Your task to perform on an android device: Open settings on Google Maps Image 0: 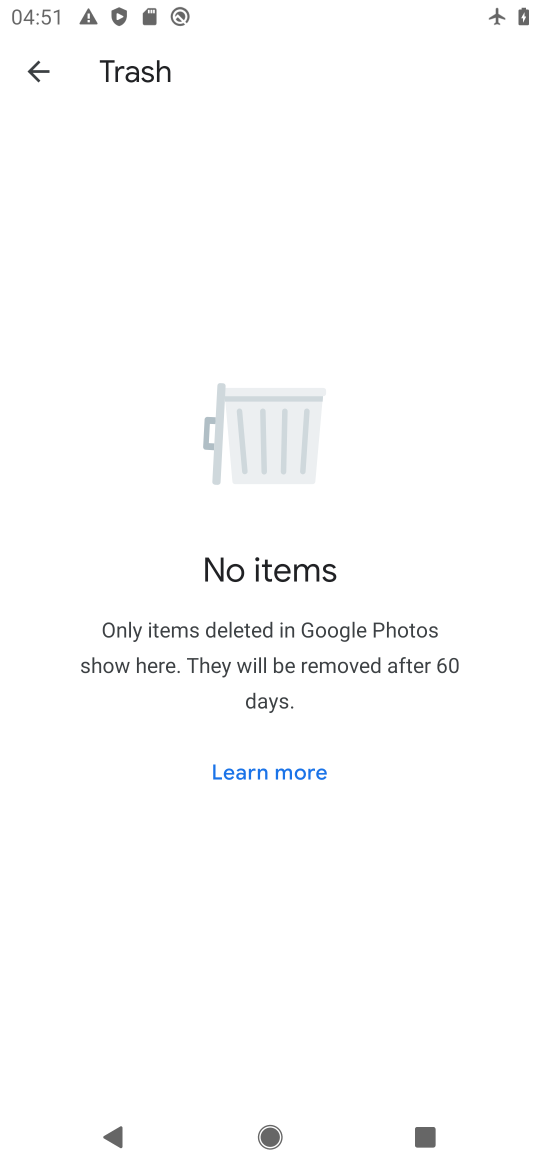
Step 0: press home button
Your task to perform on an android device: Open settings on Google Maps Image 1: 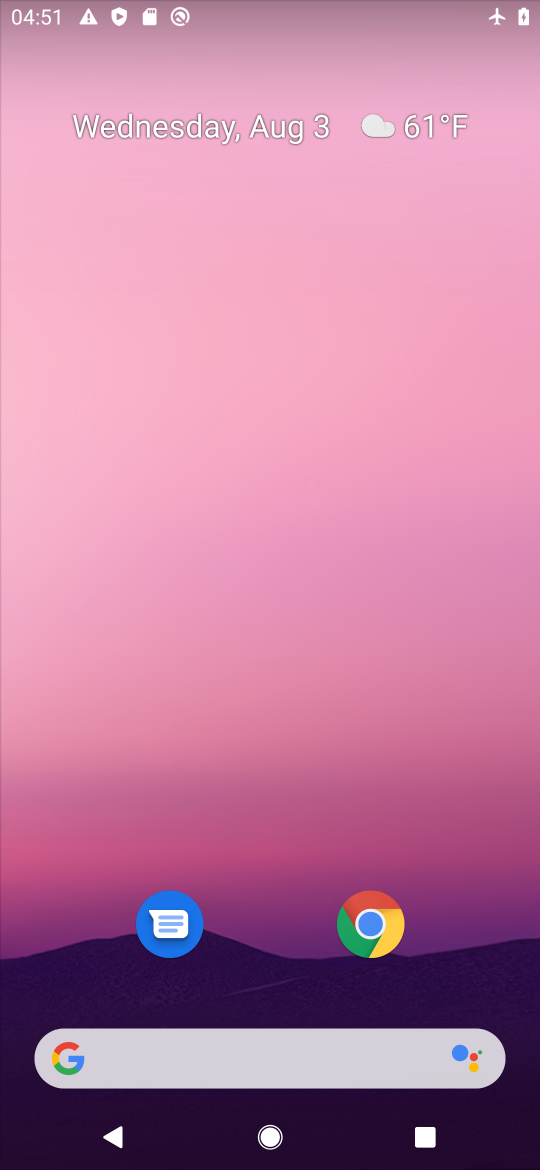
Step 1: drag from (307, 937) to (303, 346)
Your task to perform on an android device: Open settings on Google Maps Image 2: 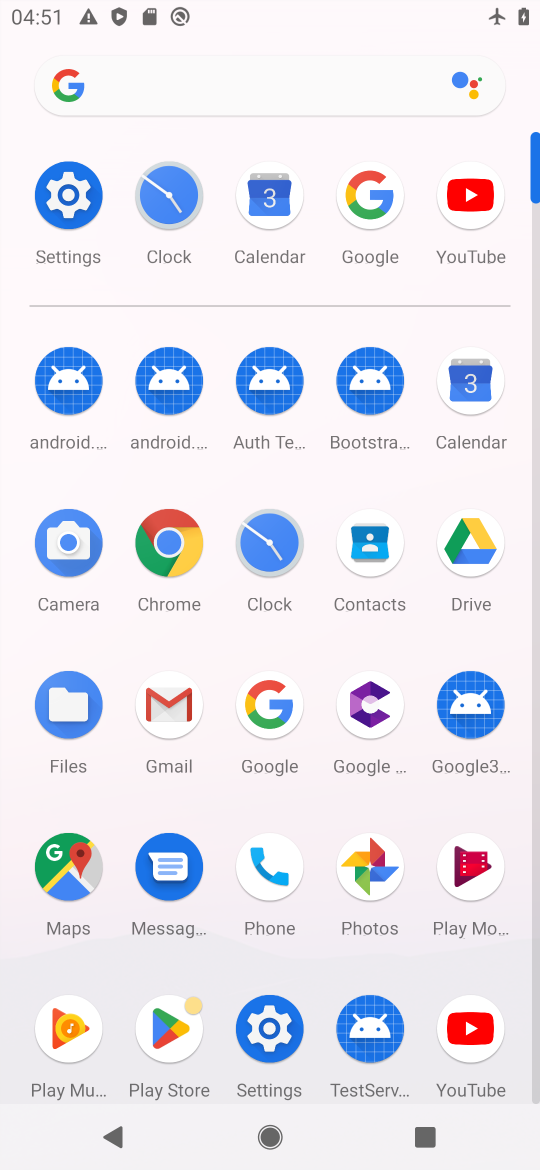
Step 2: click (62, 875)
Your task to perform on an android device: Open settings on Google Maps Image 3: 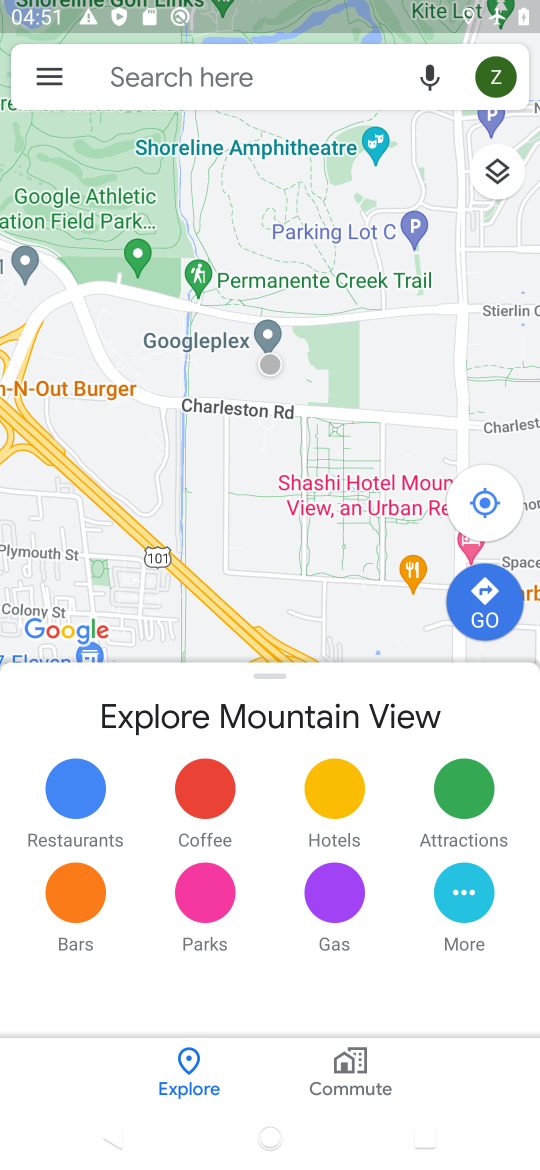
Step 3: click (43, 90)
Your task to perform on an android device: Open settings on Google Maps Image 4: 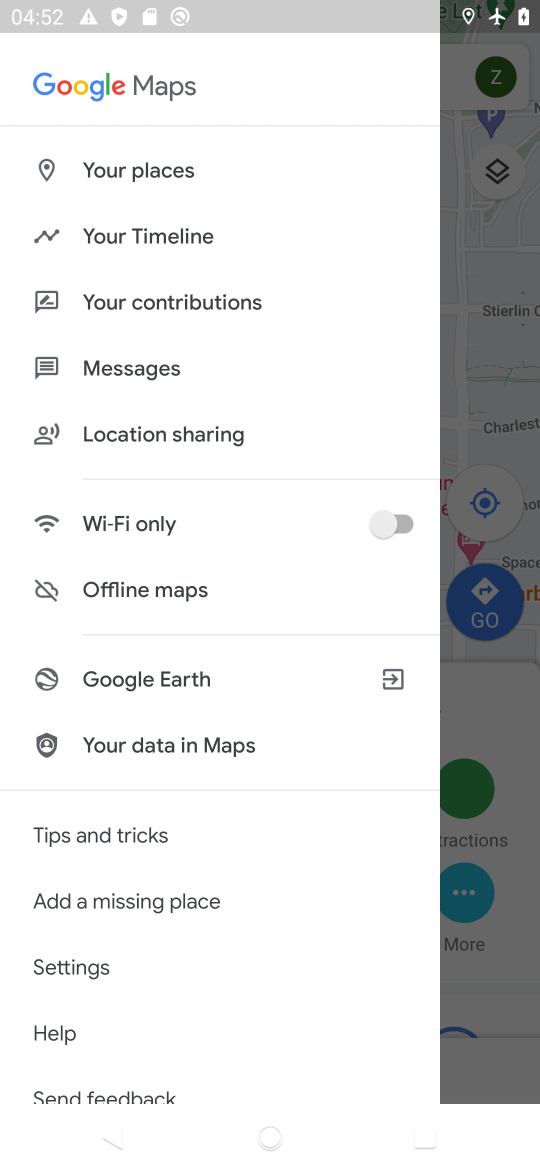
Step 4: click (95, 973)
Your task to perform on an android device: Open settings on Google Maps Image 5: 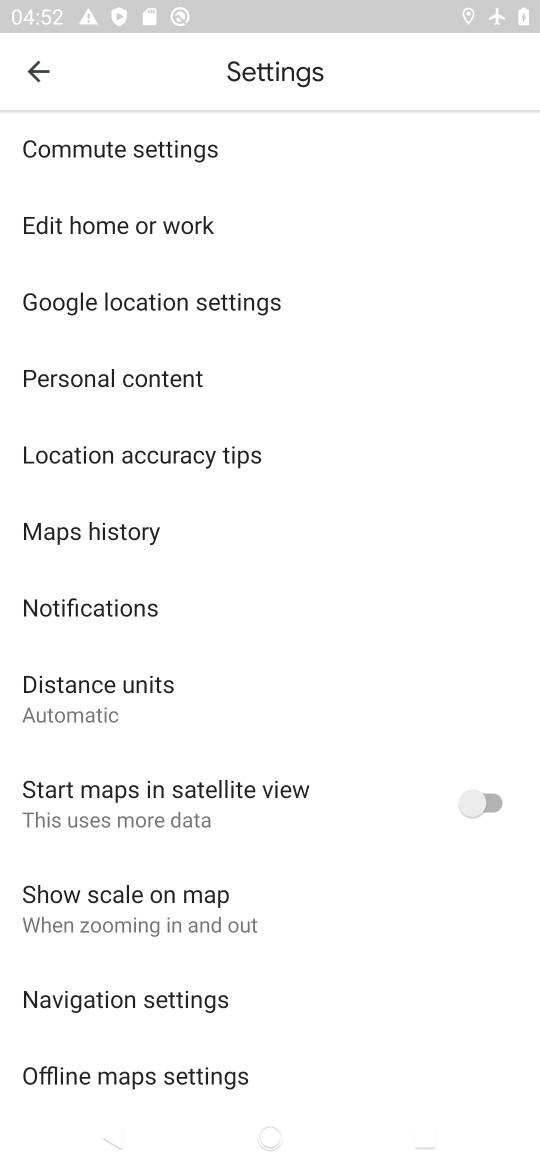
Step 5: task complete